Your task to perform on an android device: Open Google Chrome and click the shortcut for Amazon.com Image 0: 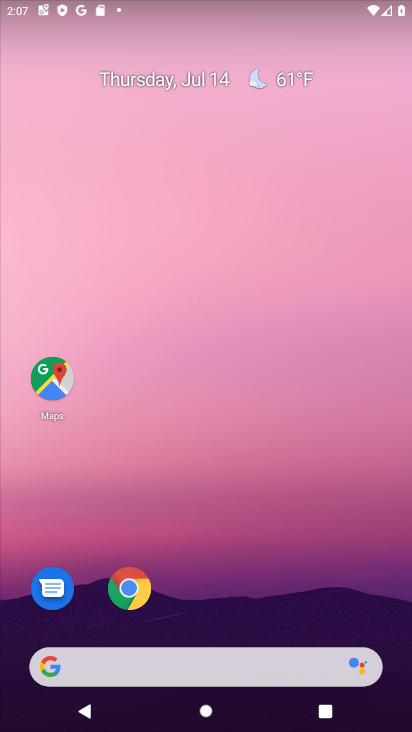
Step 0: click (134, 589)
Your task to perform on an android device: Open Google Chrome and click the shortcut for Amazon.com Image 1: 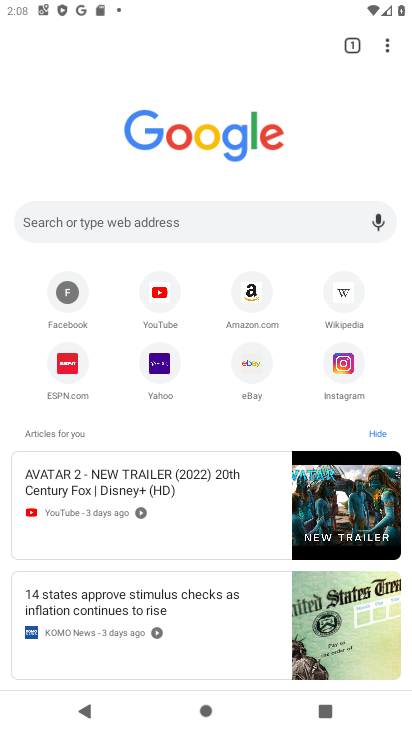
Step 1: click (251, 293)
Your task to perform on an android device: Open Google Chrome and click the shortcut for Amazon.com Image 2: 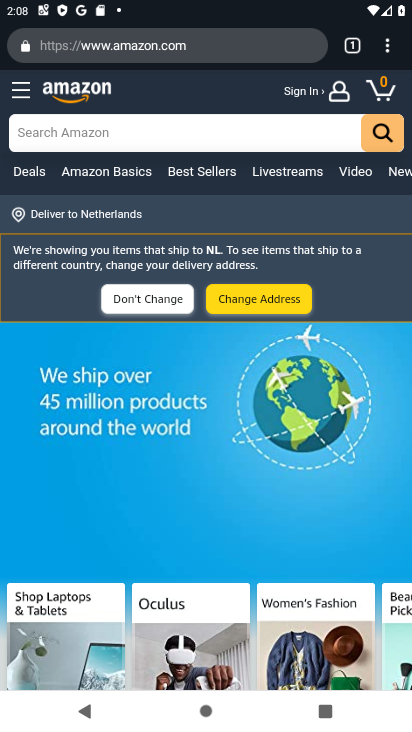
Step 2: task complete